Your task to perform on an android device: Set the phone to "Do not disturb". Image 0: 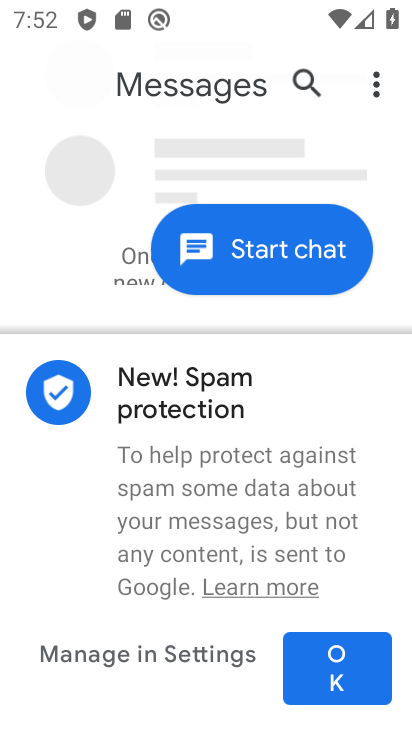
Step 0: press back button
Your task to perform on an android device: Set the phone to "Do not disturb". Image 1: 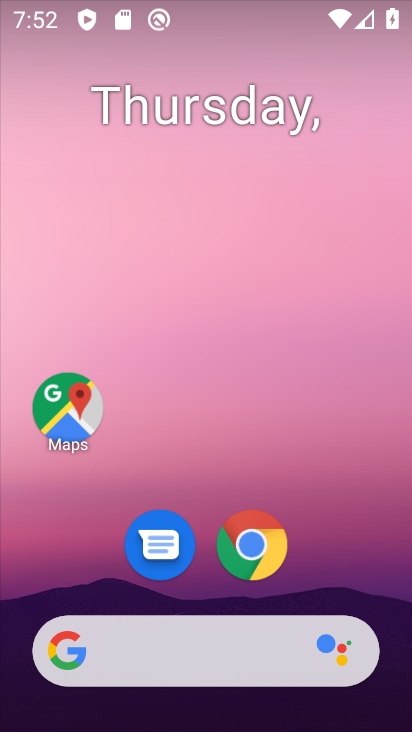
Step 1: drag from (337, 564) to (248, 139)
Your task to perform on an android device: Set the phone to "Do not disturb". Image 2: 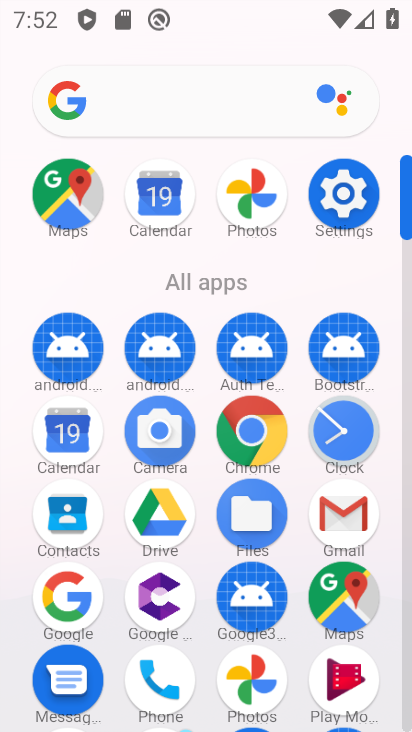
Step 2: click (343, 194)
Your task to perform on an android device: Set the phone to "Do not disturb". Image 3: 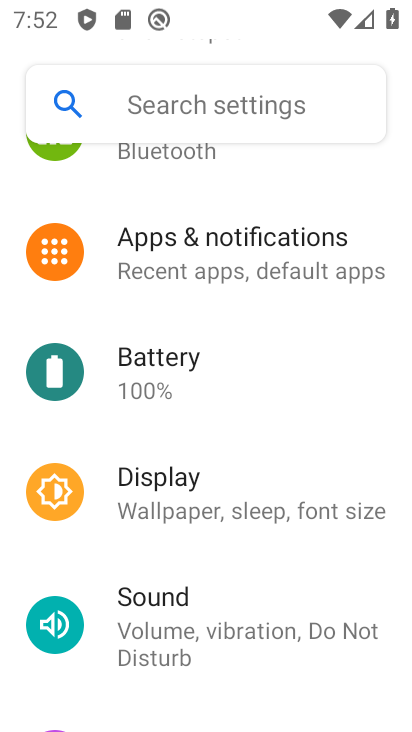
Step 3: drag from (243, 445) to (270, 372)
Your task to perform on an android device: Set the phone to "Do not disturb". Image 4: 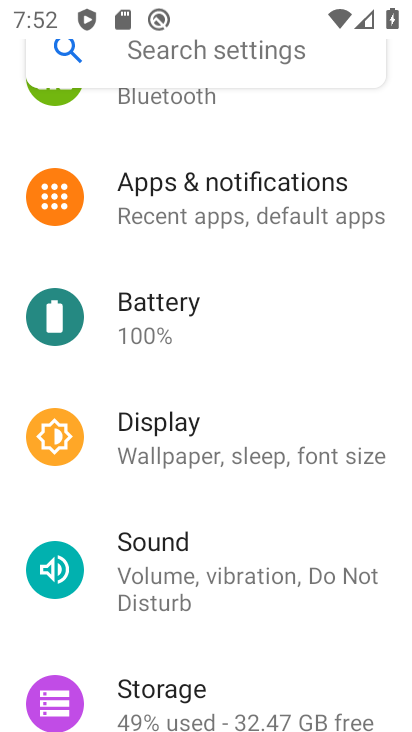
Step 4: drag from (251, 512) to (277, 420)
Your task to perform on an android device: Set the phone to "Do not disturb". Image 5: 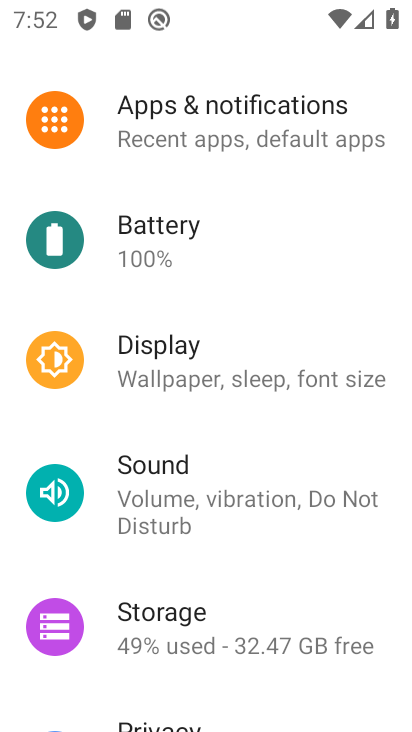
Step 5: click (240, 502)
Your task to perform on an android device: Set the phone to "Do not disturb". Image 6: 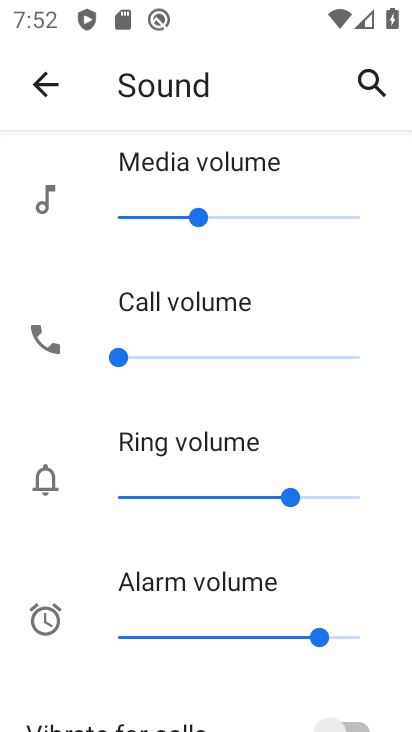
Step 6: drag from (215, 551) to (242, 445)
Your task to perform on an android device: Set the phone to "Do not disturb". Image 7: 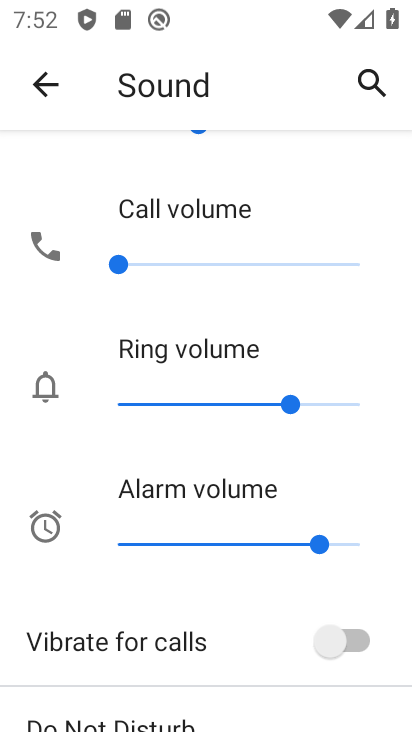
Step 7: drag from (196, 569) to (184, 455)
Your task to perform on an android device: Set the phone to "Do not disturb". Image 8: 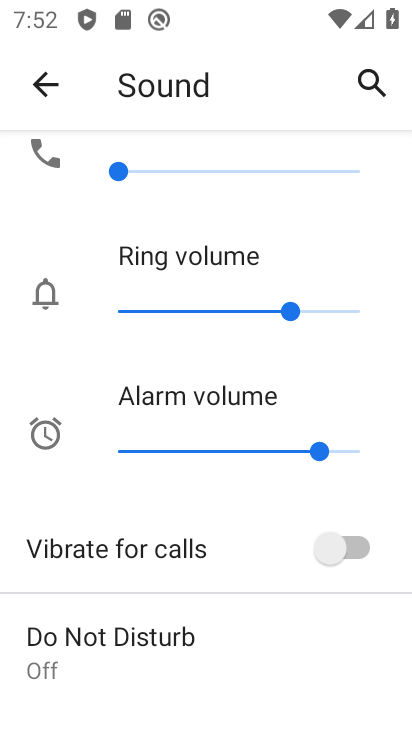
Step 8: drag from (207, 622) to (217, 527)
Your task to perform on an android device: Set the phone to "Do not disturb". Image 9: 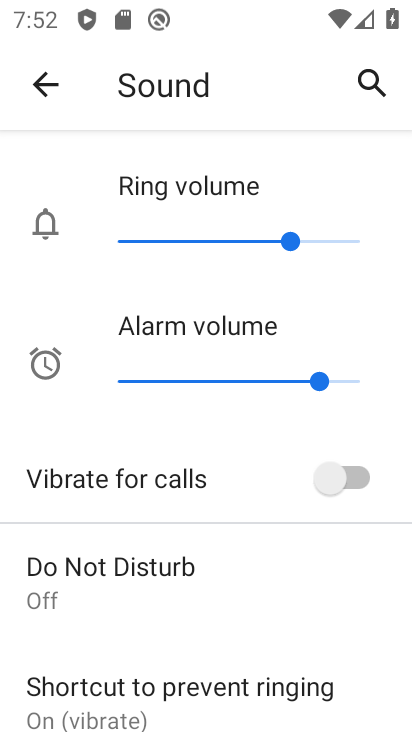
Step 9: click (181, 563)
Your task to perform on an android device: Set the phone to "Do not disturb". Image 10: 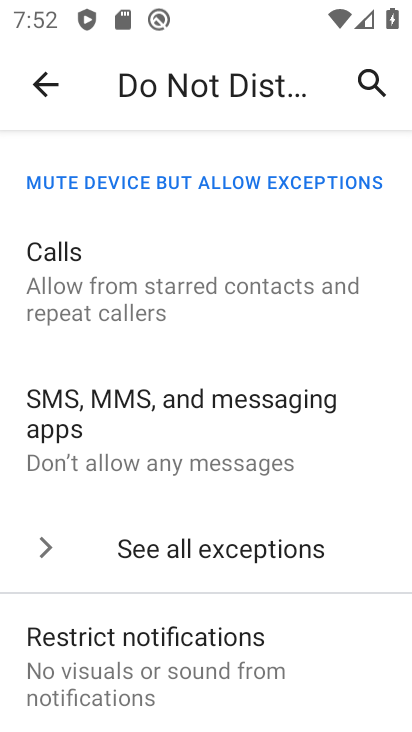
Step 10: drag from (264, 620) to (268, 510)
Your task to perform on an android device: Set the phone to "Do not disturb". Image 11: 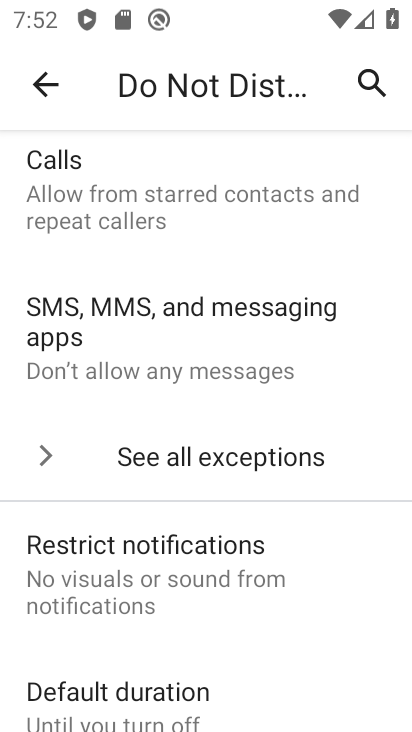
Step 11: drag from (224, 645) to (227, 522)
Your task to perform on an android device: Set the phone to "Do not disturb". Image 12: 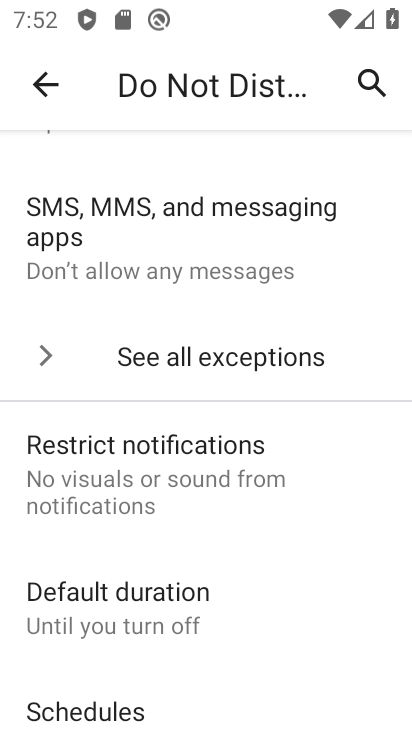
Step 12: drag from (195, 655) to (202, 528)
Your task to perform on an android device: Set the phone to "Do not disturb". Image 13: 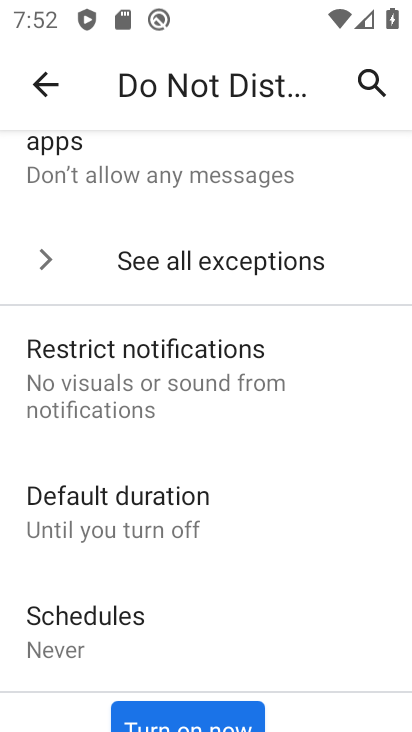
Step 13: drag from (206, 646) to (266, 525)
Your task to perform on an android device: Set the phone to "Do not disturb". Image 14: 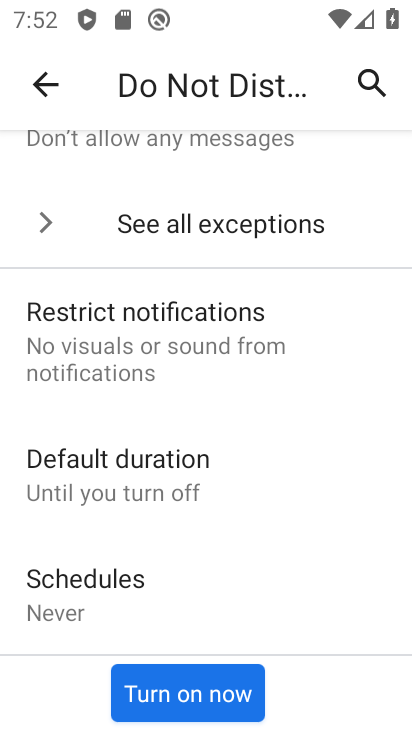
Step 14: click (205, 691)
Your task to perform on an android device: Set the phone to "Do not disturb". Image 15: 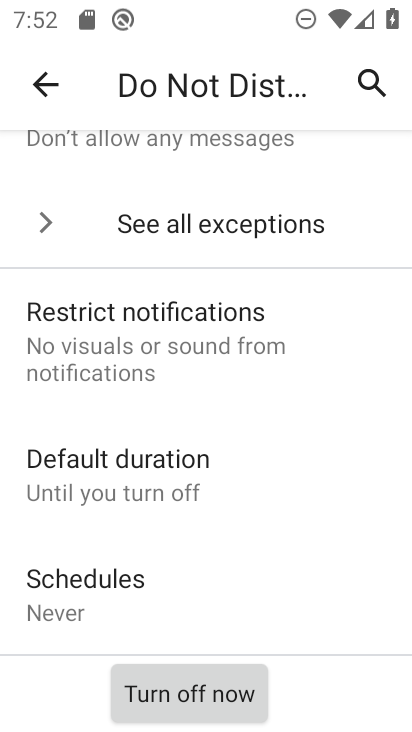
Step 15: task complete